Your task to perform on an android device: Open Google Chrome Image 0: 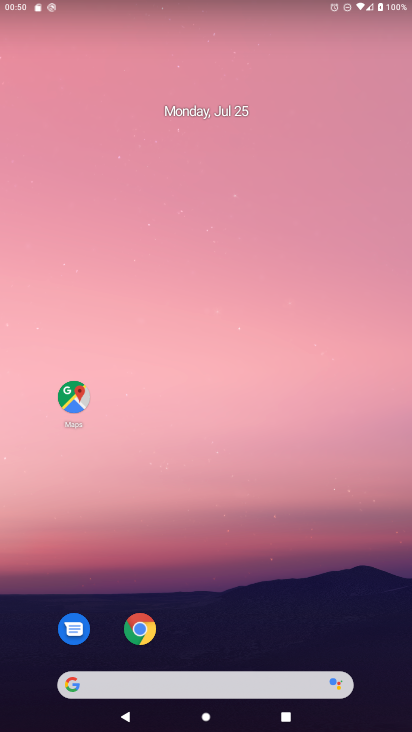
Step 0: drag from (193, 568) to (213, 176)
Your task to perform on an android device: Open Google Chrome Image 1: 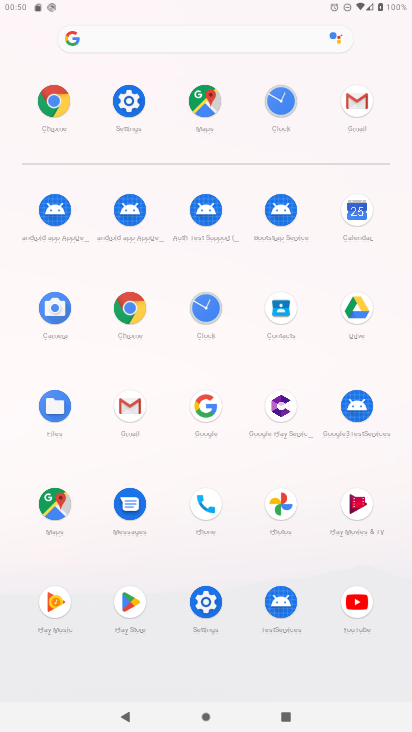
Step 1: click (121, 298)
Your task to perform on an android device: Open Google Chrome Image 2: 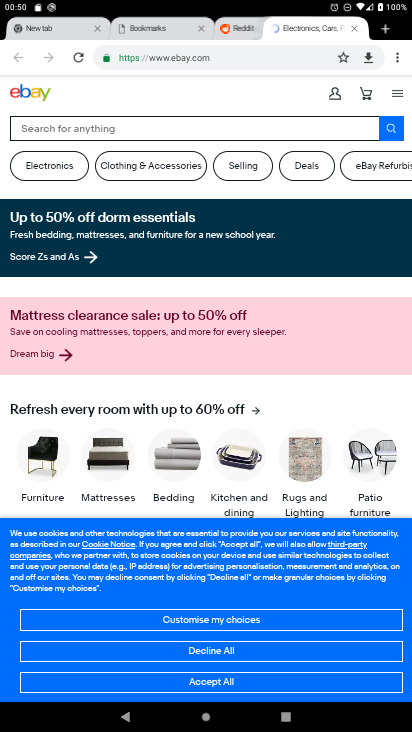
Step 2: task complete